Your task to perform on an android device: Search for pizza restaurants on Maps Image 0: 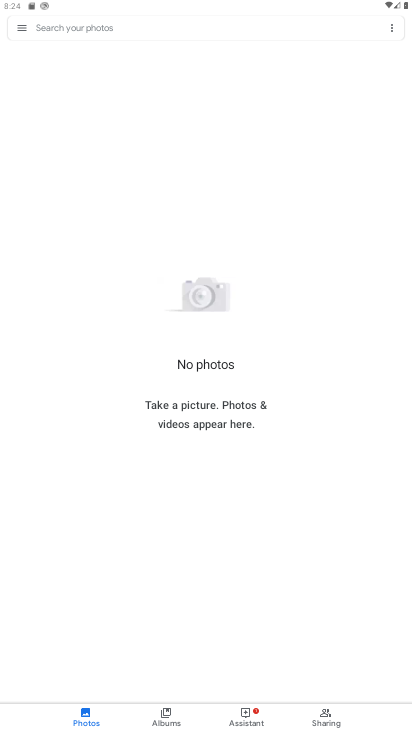
Step 0: press home button
Your task to perform on an android device: Search for pizza restaurants on Maps Image 1: 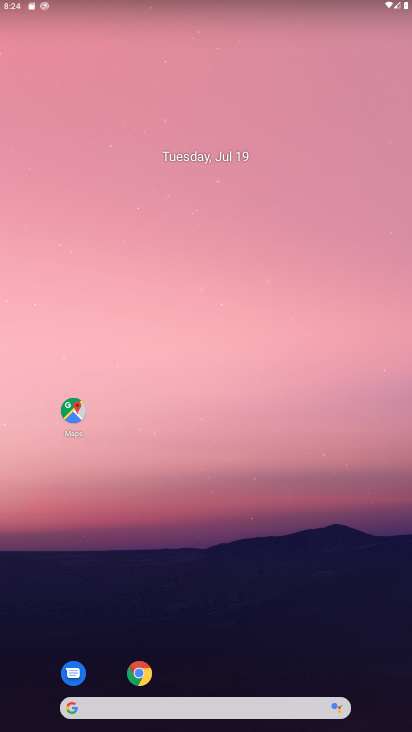
Step 1: click (71, 407)
Your task to perform on an android device: Search for pizza restaurants on Maps Image 2: 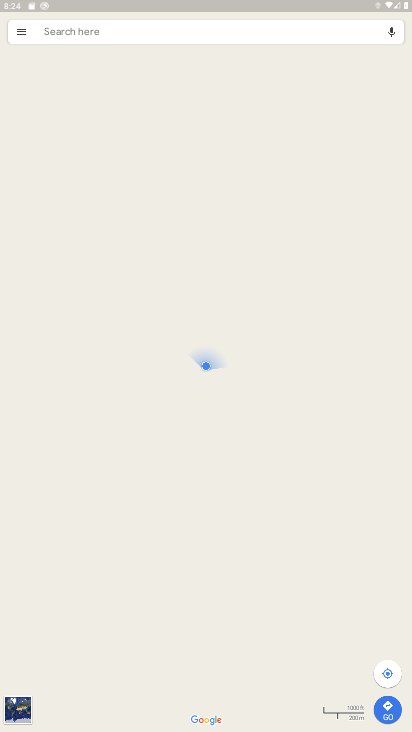
Step 2: click (101, 28)
Your task to perform on an android device: Search for pizza restaurants on Maps Image 3: 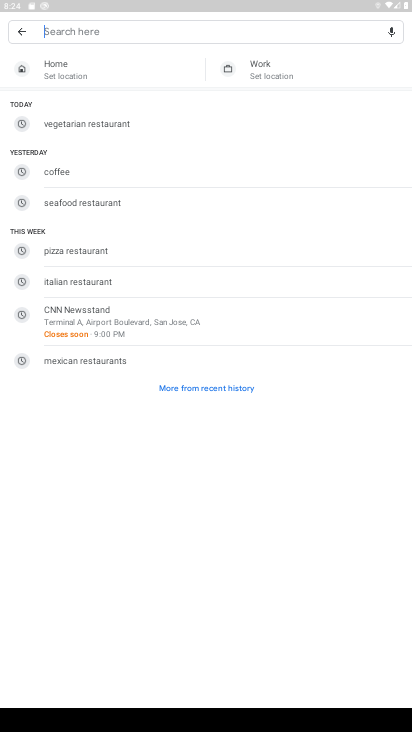
Step 3: type "pizza restaurants"
Your task to perform on an android device: Search for pizza restaurants on Maps Image 4: 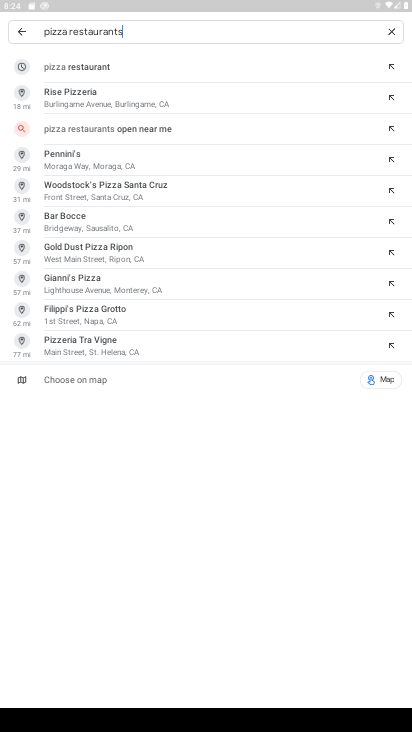
Step 4: click (81, 64)
Your task to perform on an android device: Search for pizza restaurants on Maps Image 5: 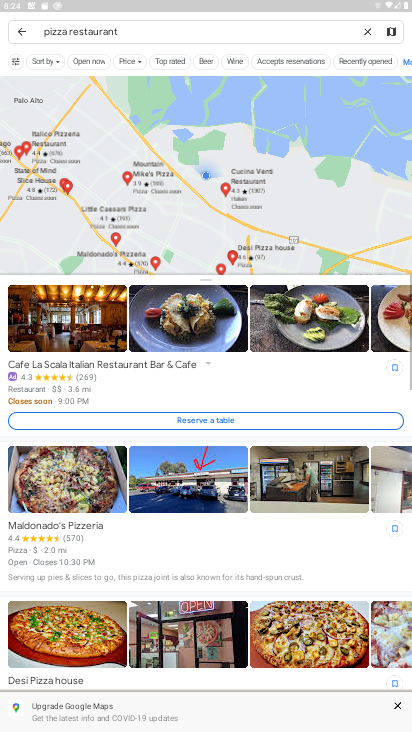
Step 5: task complete